Your task to perform on an android device: What is the news today? Image 0: 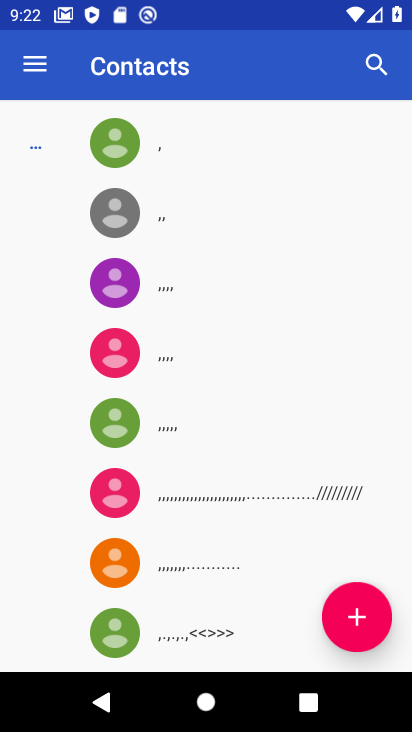
Step 0: press home button
Your task to perform on an android device: What is the news today? Image 1: 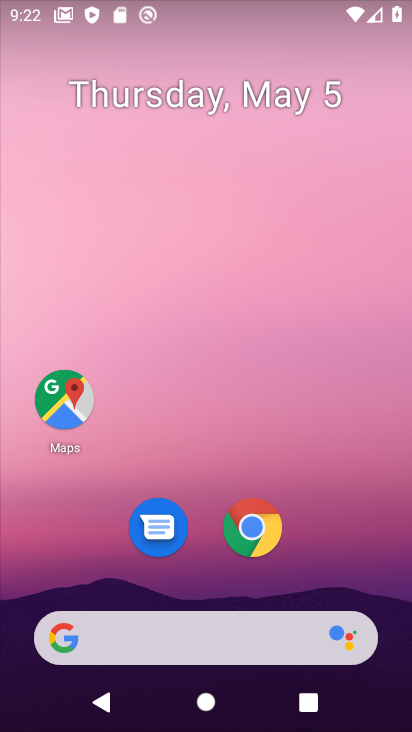
Step 1: drag from (271, 574) to (265, 140)
Your task to perform on an android device: What is the news today? Image 2: 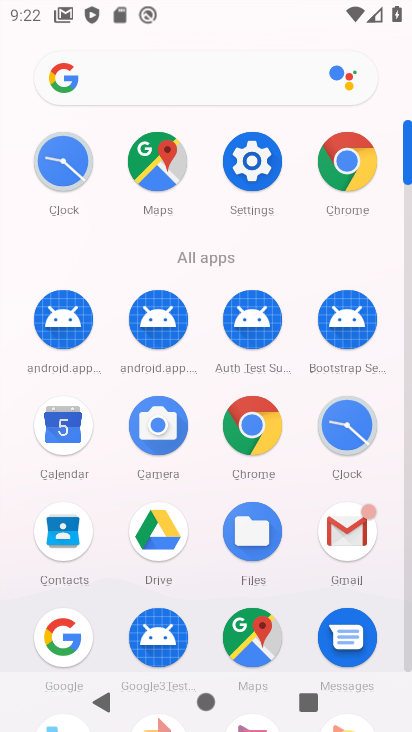
Step 2: drag from (247, 512) to (267, 271)
Your task to perform on an android device: What is the news today? Image 3: 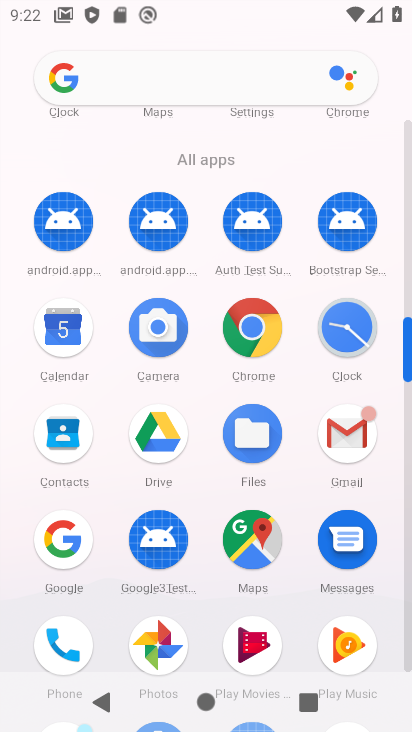
Step 3: click (84, 532)
Your task to perform on an android device: What is the news today? Image 4: 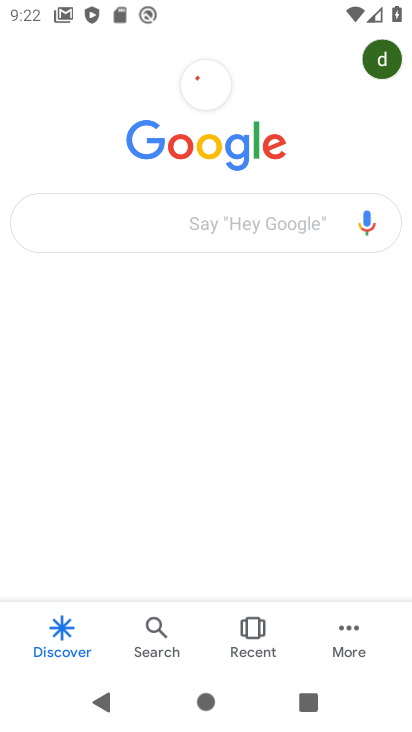
Step 4: click (178, 216)
Your task to perform on an android device: What is the news today? Image 5: 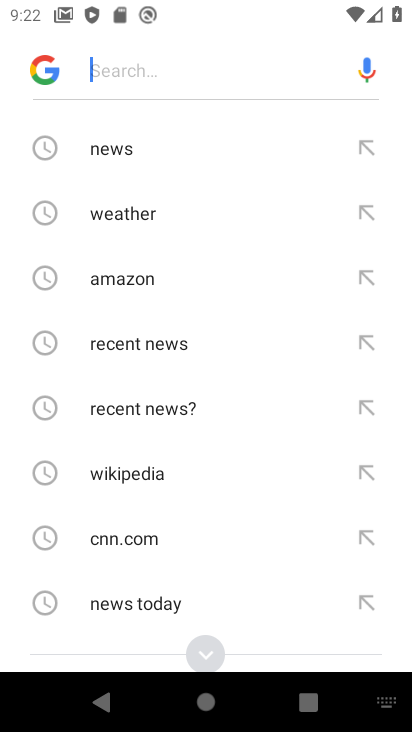
Step 5: click (146, 149)
Your task to perform on an android device: What is the news today? Image 6: 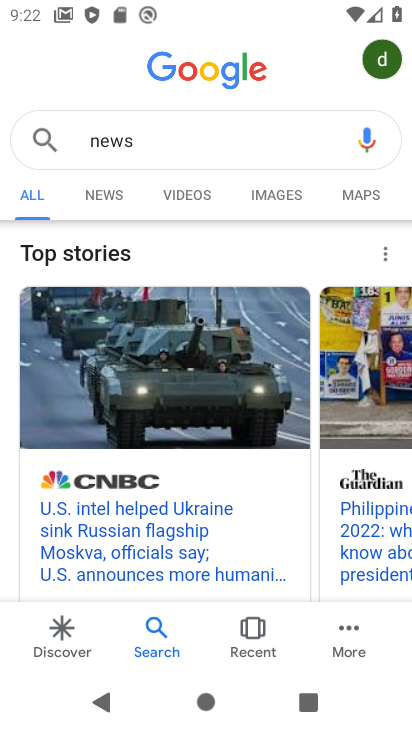
Step 6: task complete